Your task to perform on an android device: Go to Wikipedia Image 0: 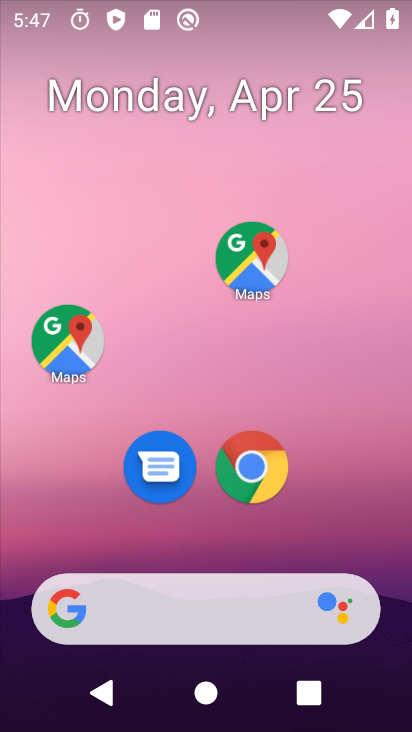
Step 0: drag from (286, 479) to (291, 31)
Your task to perform on an android device: Go to Wikipedia Image 1: 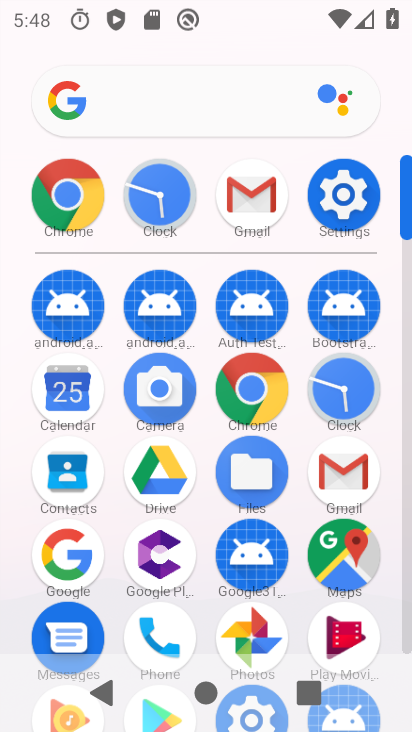
Step 1: click (277, 408)
Your task to perform on an android device: Go to Wikipedia Image 2: 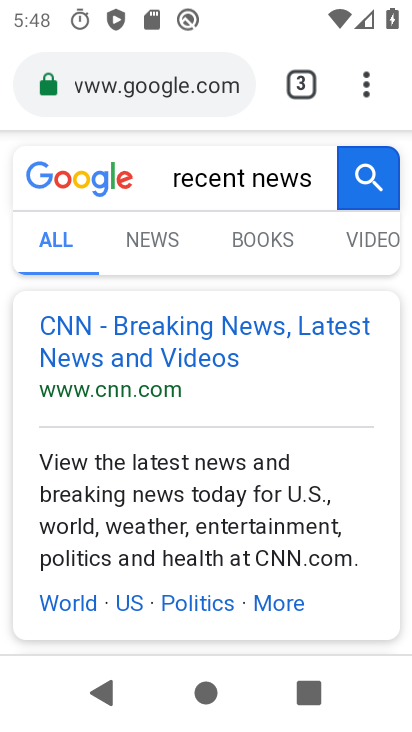
Step 2: click (240, 86)
Your task to perform on an android device: Go to Wikipedia Image 3: 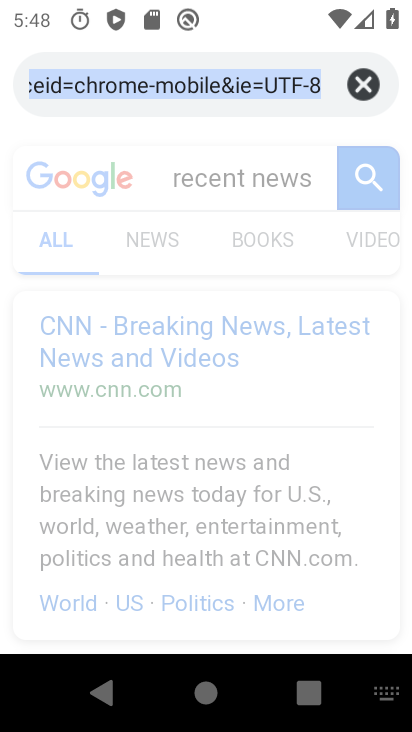
Step 3: click (375, 76)
Your task to perform on an android device: Go to Wikipedia Image 4: 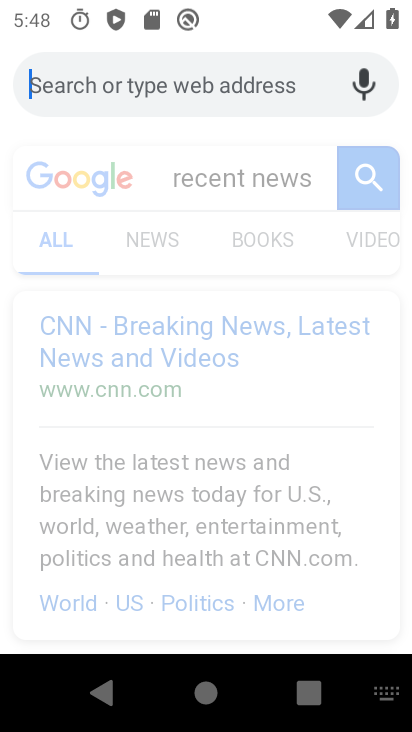
Step 4: type "wikipedia"
Your task to perform on an android device: Go to Wikipedia Image 5: 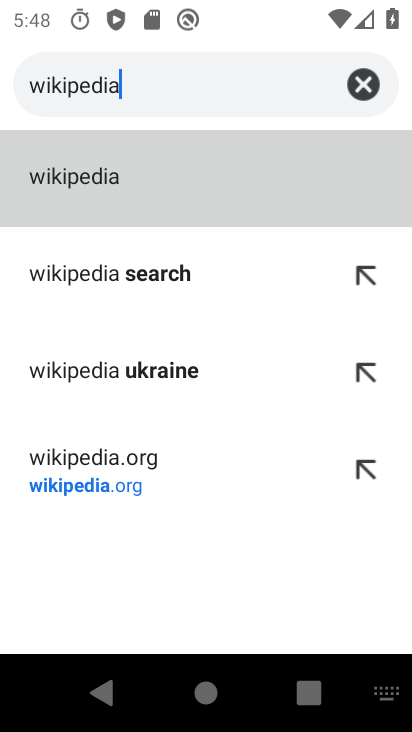
Step 5: click (78, 173)
Your task to perform on an android device: Go to Wikipedia Image 6: 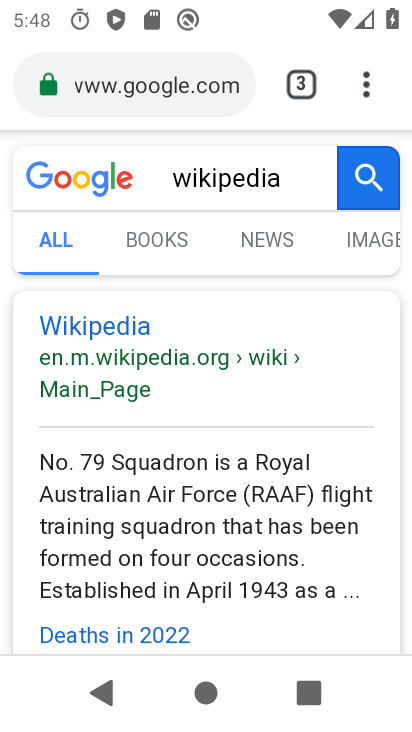
Step 6: task complete